Your task to perform on an android device: star an email in the gmail app Image 0: 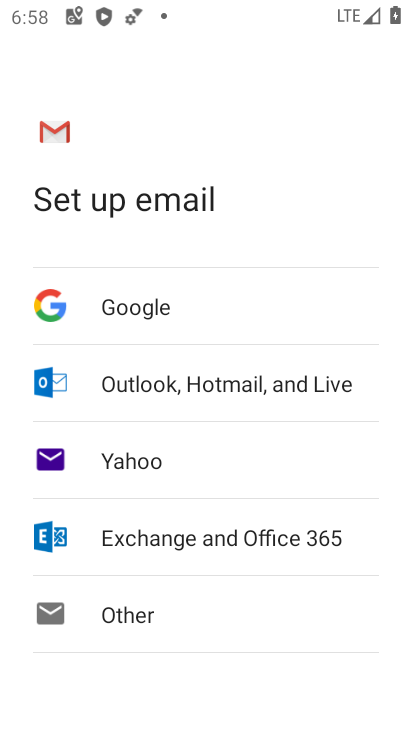
Step 0: press home button
Your task to perform on an android device: star an email in the gmail app Image 1: 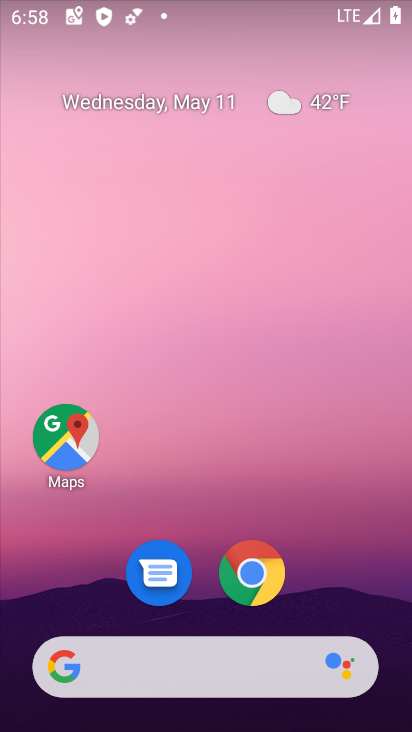
Step 1: drag from (312, 592) to (290, 307)
Your task to perform on an android device: star an email in the gmail app Image 2: 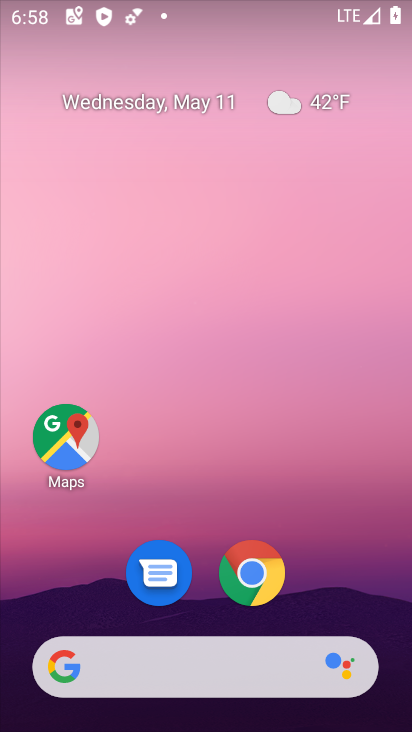
Step 2: drag from (319, 577) to (295, 172)
Your task to perform on an android device: star an email in the gmail app Image 3: 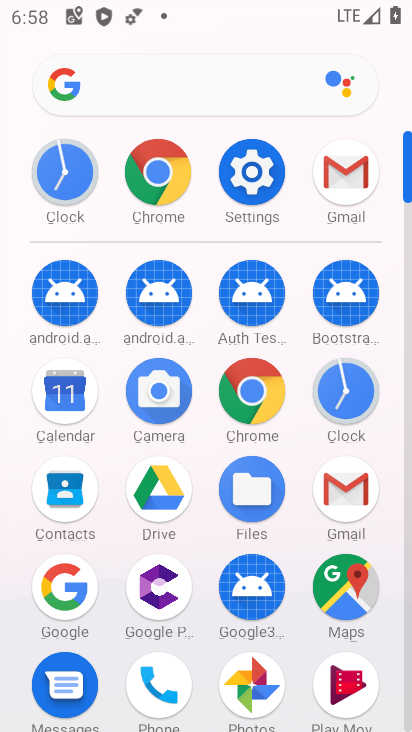
Step 3: click (343, 522)
Your task to perform on an android device: star an email in the gmail app Image 4: 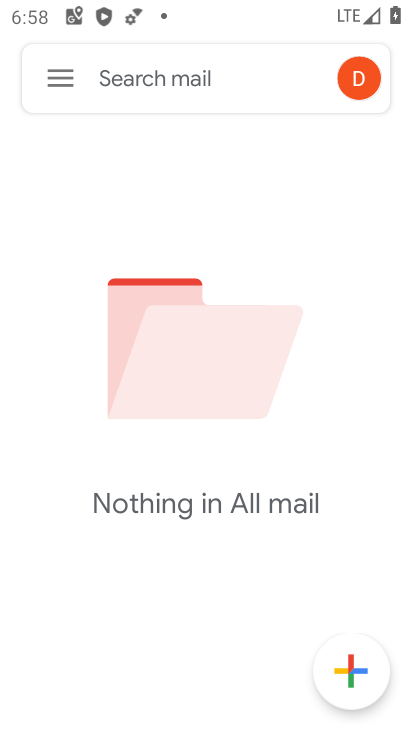
Step 4: click (61, 78)
Your task to perform on an android device: star an email in the gmail app Image 5: 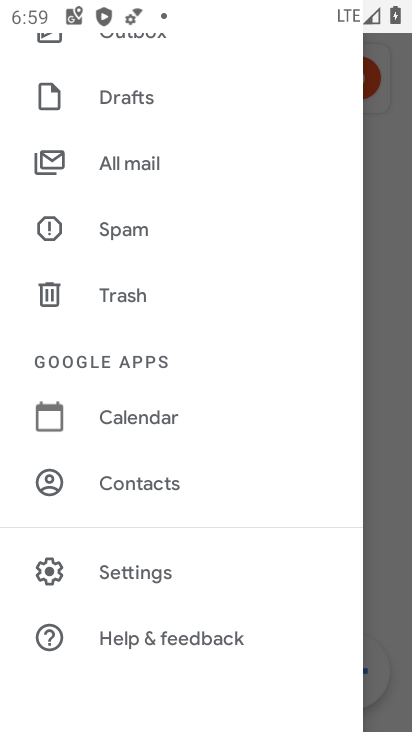
Step 5: click (139, 174)
Your task to perform on an android device: star an email in the gmail app Image 6: 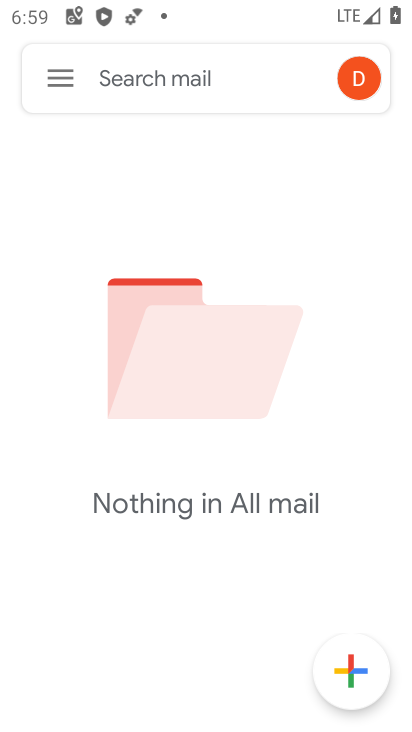
Step 6: task complete